Your task to perform on an android device: clear all cookies in the chrome app Image 0: 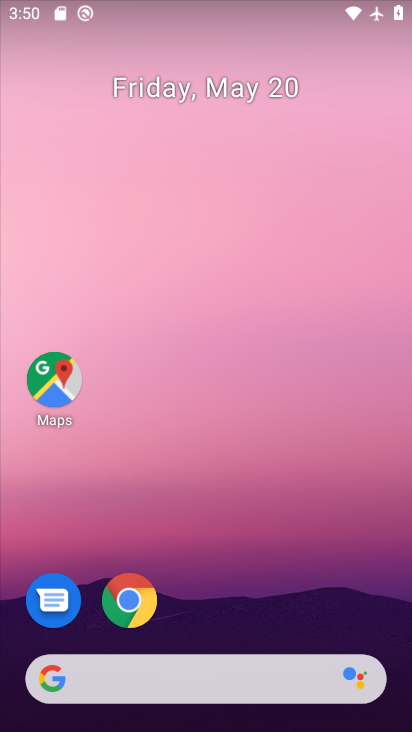
Step 0: click (135, 601)
Your task to perform on an android device: clear all cookies in the chrome app Image 1: 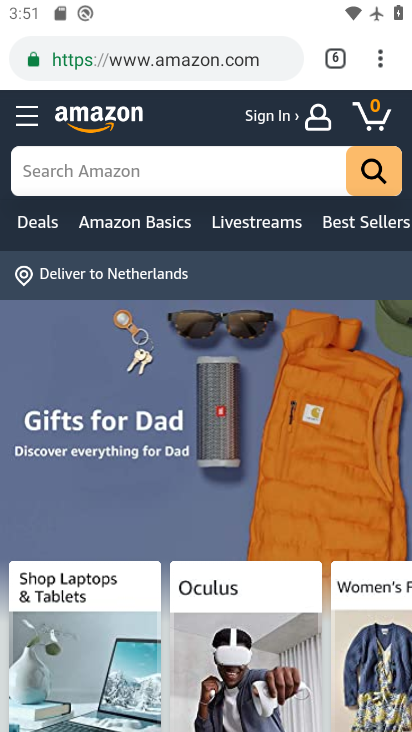
Step 1: click (382, 59)
Your task to perform on an android device: clear all cookies in the chrome app Image 2: 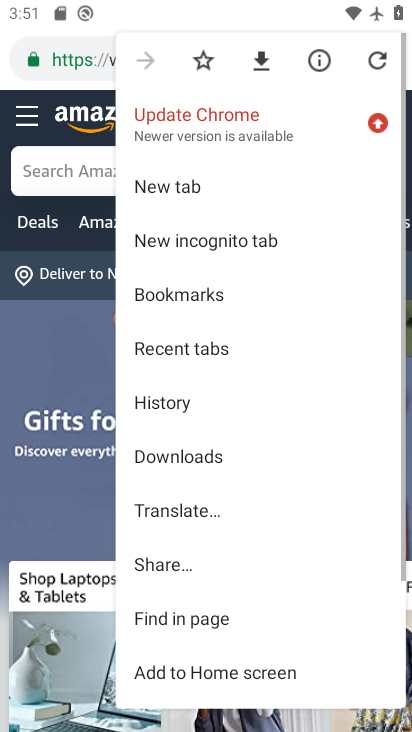
Step 2: click (225, 394)
Your task to perform on an android device: clear all cookies in the chrome app Image 3: 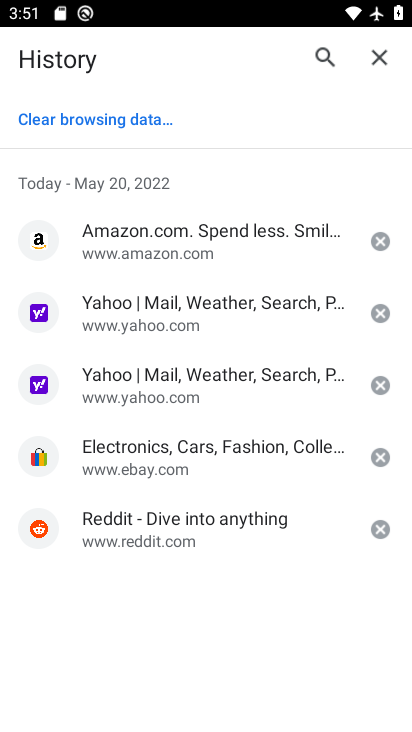
Step 3: click (79, 115)
Your task to perform on an android device: clear all cookies in the chrome app Image 4: 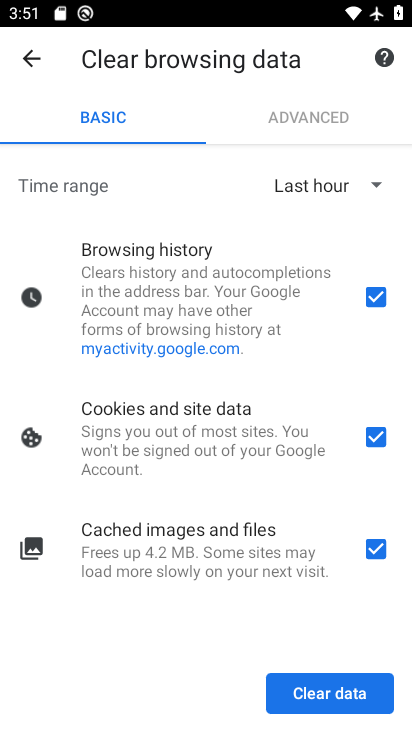
Step 4: click (334, 693)
Your task to perform on an android device: clear all cookies in the chrome app Image 5: 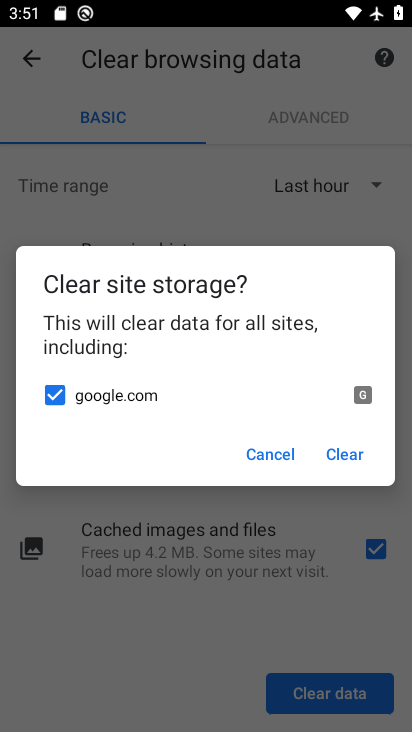
Step 5: click (330, 447)
Your task to perform on an android device: clear all cookies in the chrome app Image 6: 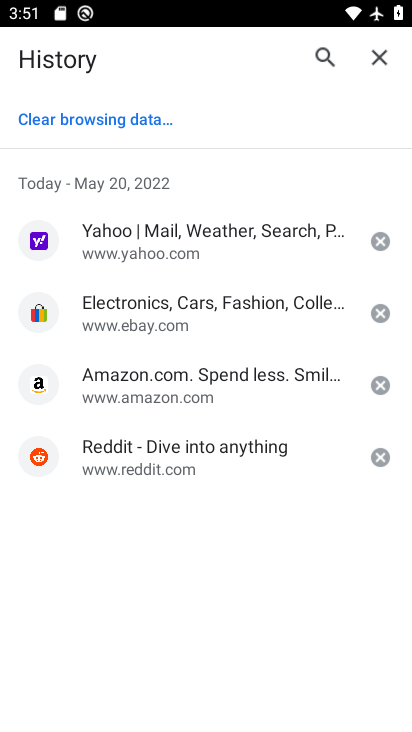
Step 6: task complete